Your task to perform on an android device: Go to display settings Image 0: 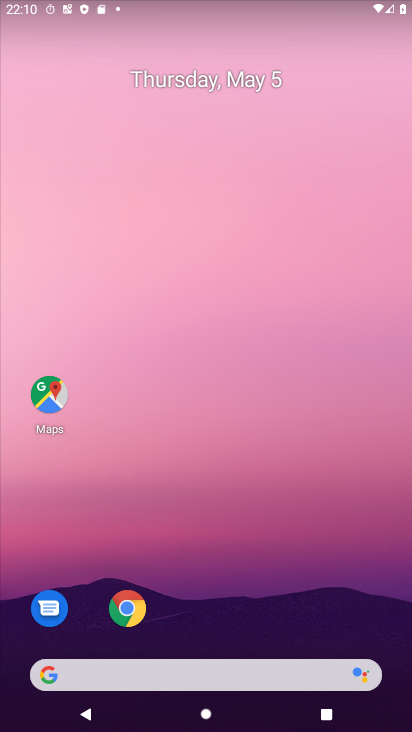
Step 0: drag from (271, 663) to (258, 3)
Your task to perform on an android device: Go to display settings Image 1: 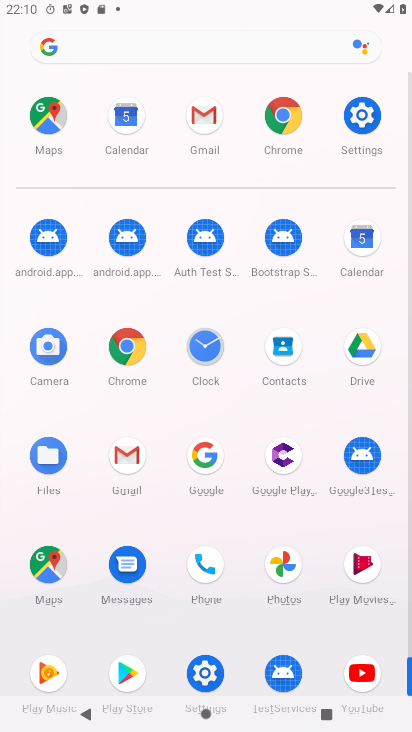
Step 1: click (354, 115)
Your task to perform on an android device: Go to display settings Image 2: 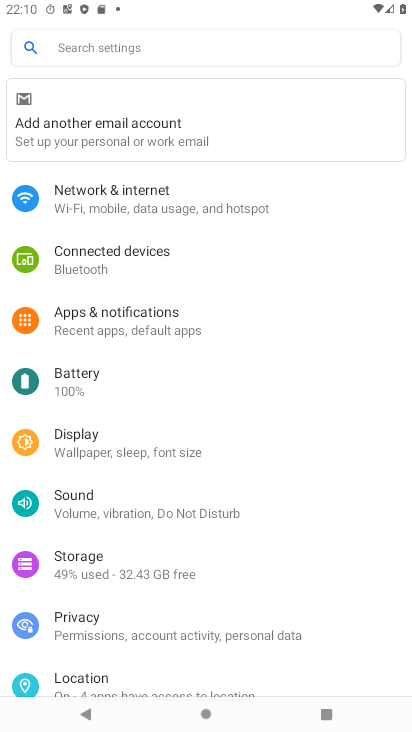
Step 2: click (113, 446)
Your task to perform on an android device: Go to display settings Image 3: 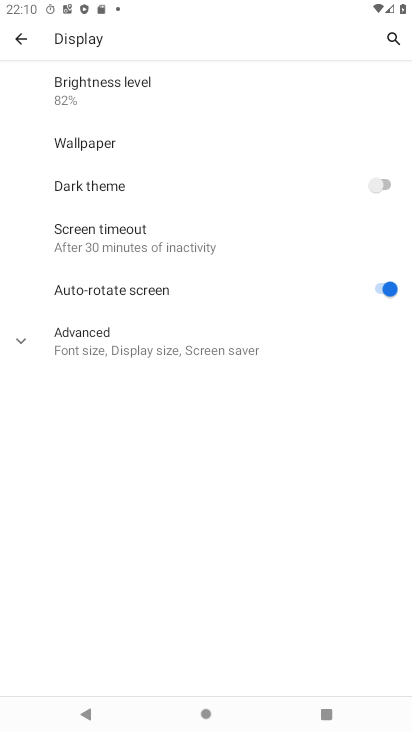
Step 3: task complete